Your task to perform on an android device: Go to Wikipedia Image 0: 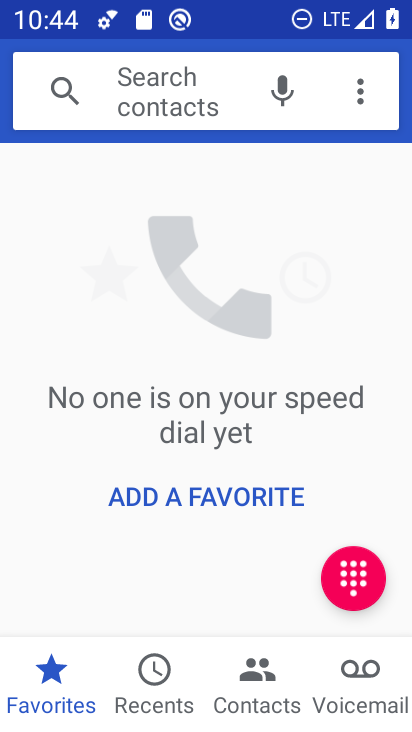
Step 0: press back button
Your task to perform on an android device: Go to Wikipedia Image 1: 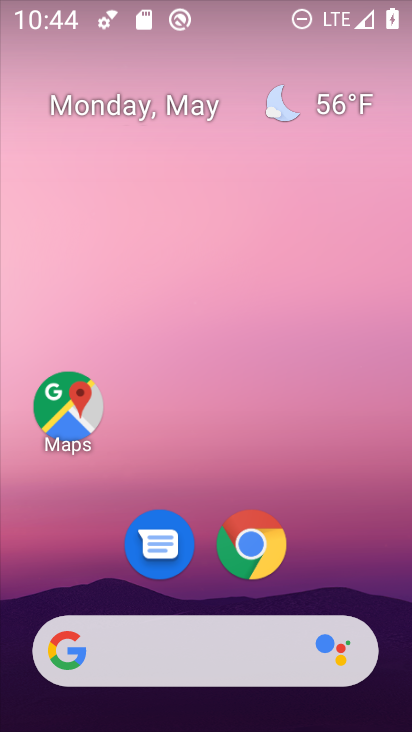
Step 1: click (254, 545)
Your task to perform on an android device: Go to Wikipedia Image 2: 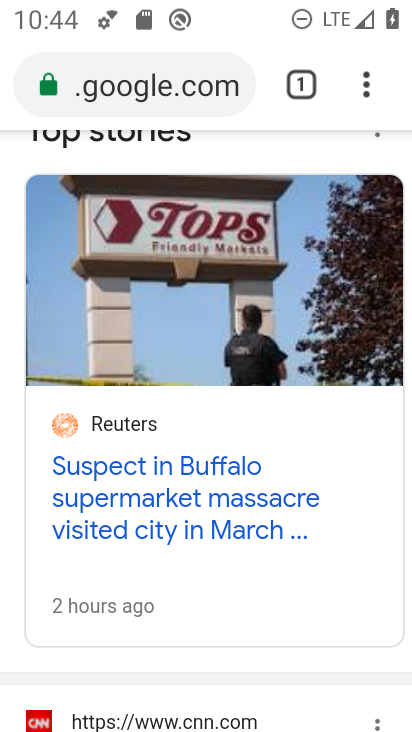
Step 2: click (189, 93)
Your task to perform on an android device: Go to Wikipedia Image 3: 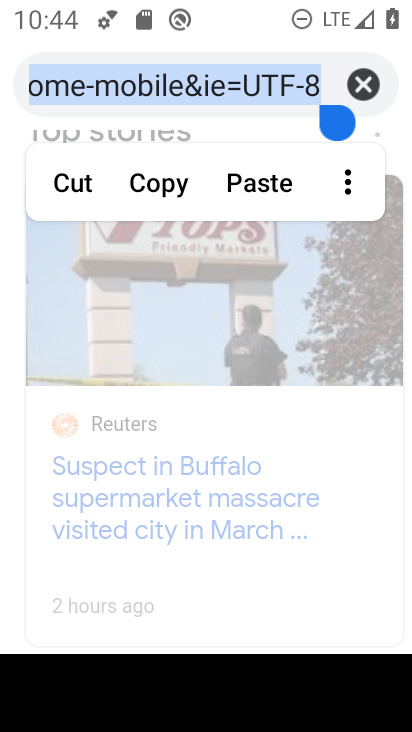
Step 3: click (370, 83)
Your task to perform on an android device: Go to Wikipedia Image 4: 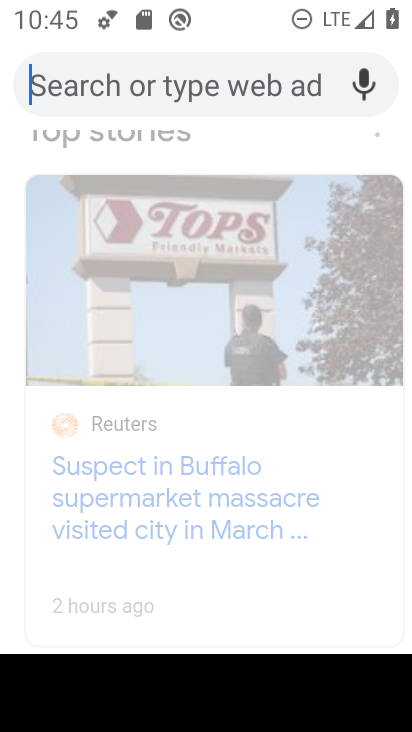
Step 4: type "Wikipedia"
Your task to perform on an android device: Go to Wikipedia Image 5: 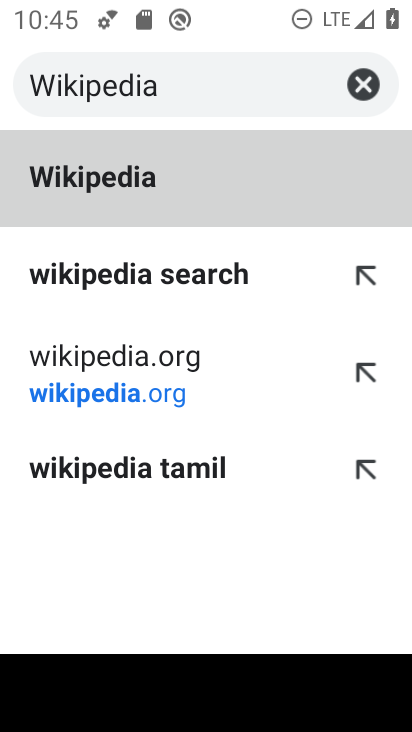
Step 5: click (180, 191)
Your task to perform on an android device: Go to Wikipedia Image 6: 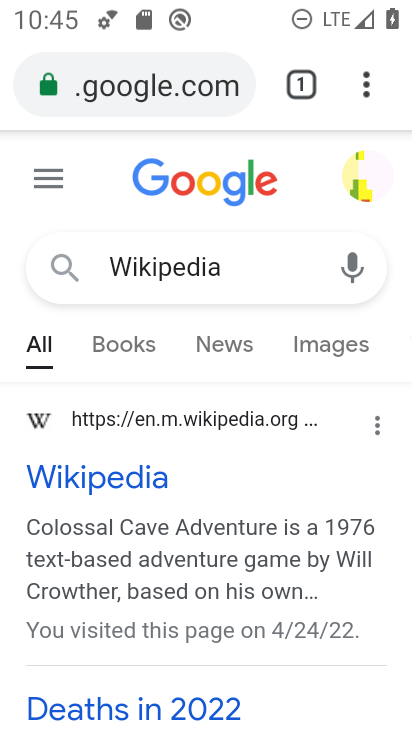
Step 6: click (146, 476)
Your task to perform on an android device: Go to Wikipedia Image 7: 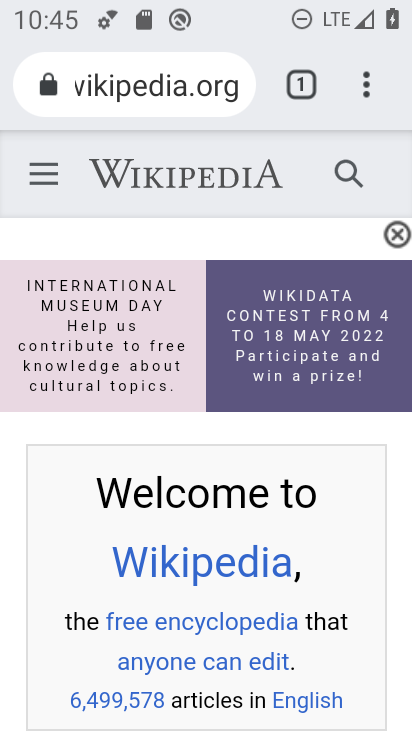
Step 7: task complete